Your task to perform on an android device: toggle wifi Image 0: 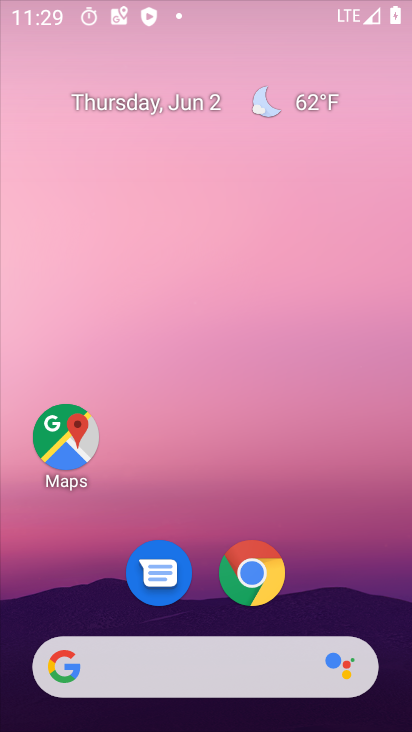
Step 0: drag from (235, 679) to (281, 148)
Your task to perform on an android device: toggle wifi Image 1: 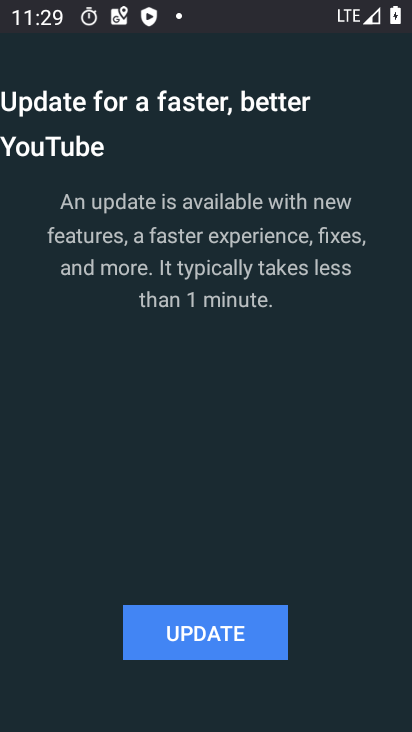
Step 1: press back button
Your task to perform on an android device: toggle wifi Image 2: 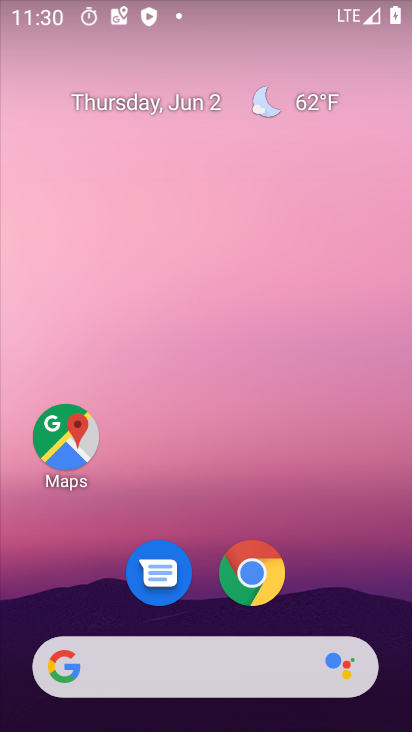
Step 2: drag from (315, 617) to (319, 98)
Your task to perform on an android device: toggle wifi Image 3: 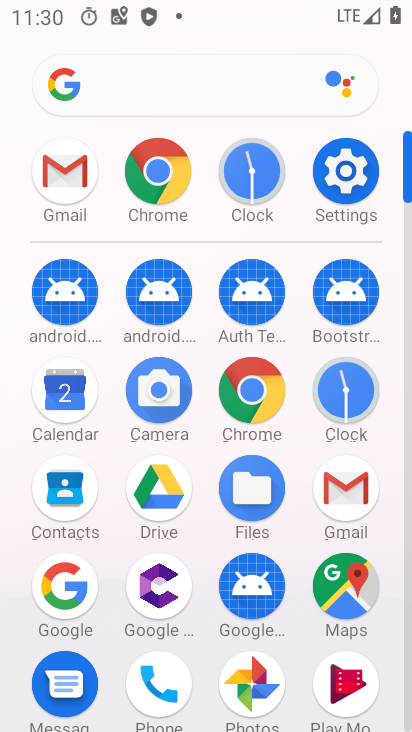
Step 3: click (357, 188)
Your task to perform on an android device: toggle wifi Image 4: 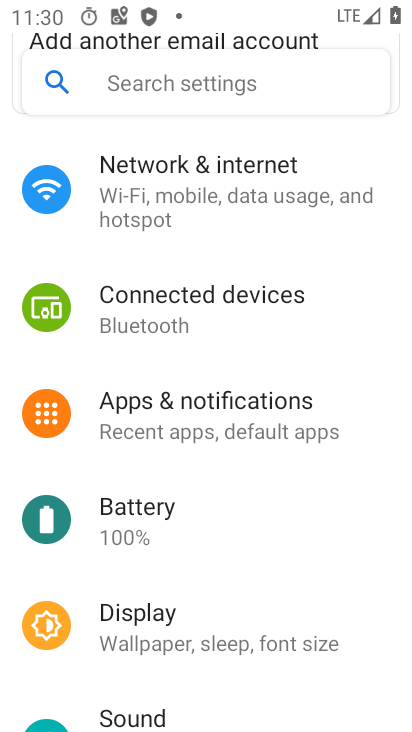
Step 4: click (227, 211)
Your task to perform on an android device: toggle wifi Image 5: 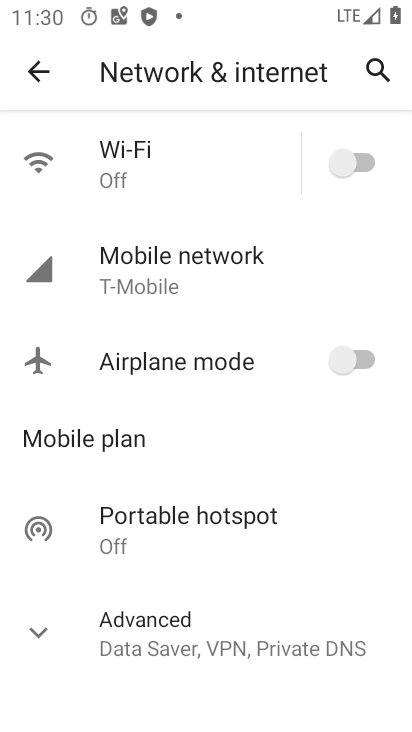
Step 5: click (366, 159)
Your task to perform on an android device: toggle wifi Image 6: 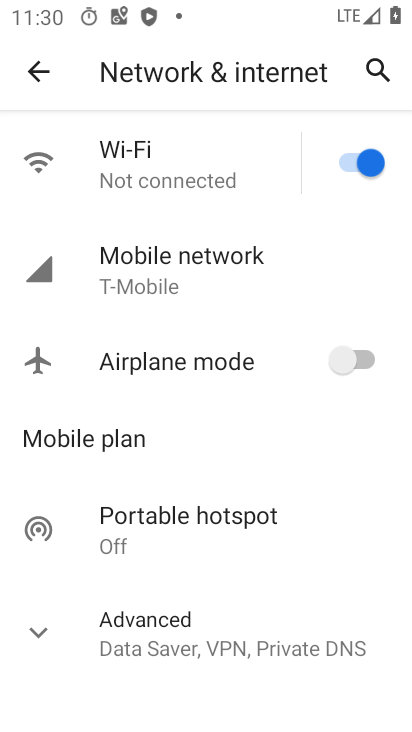
Step 6: task complete